Your task to perform on an android device: turn off location Image 0: 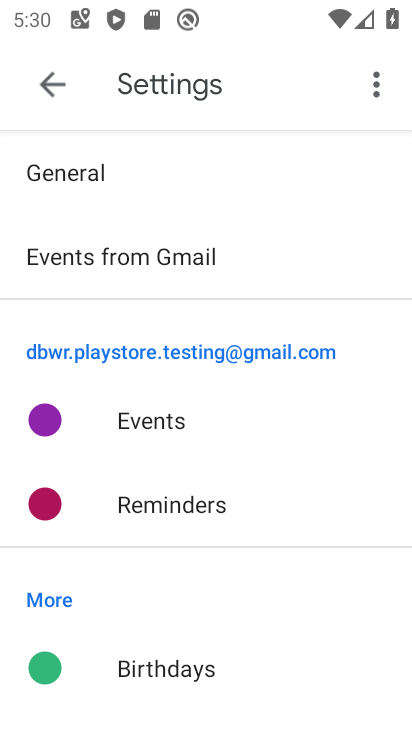
Step 0: press home button
Your task to perform on an android device: turn off location Image 1: 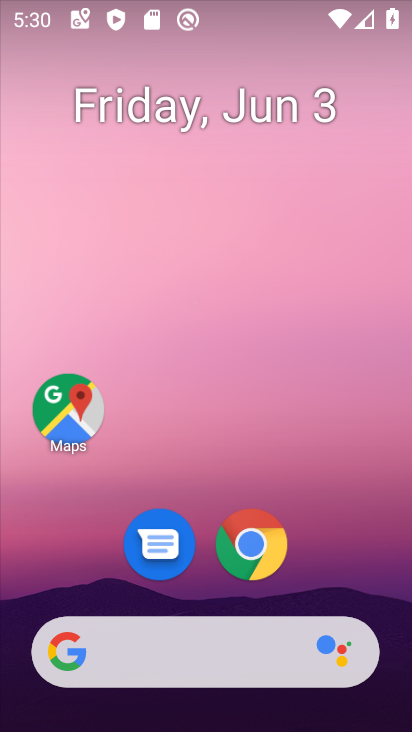
Step 1: drag from (333, 574) to (348, 95)
Your task to perform on an android device: turn off location Image 2: 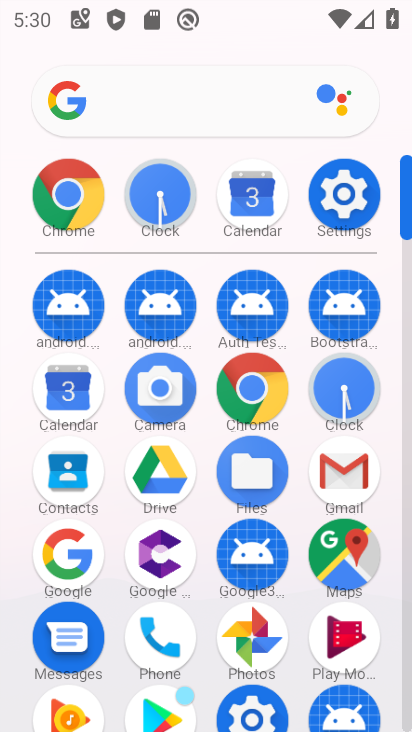
Step 2: click (341, 181)
Your task to perform on an android device: turn off location Image 3: 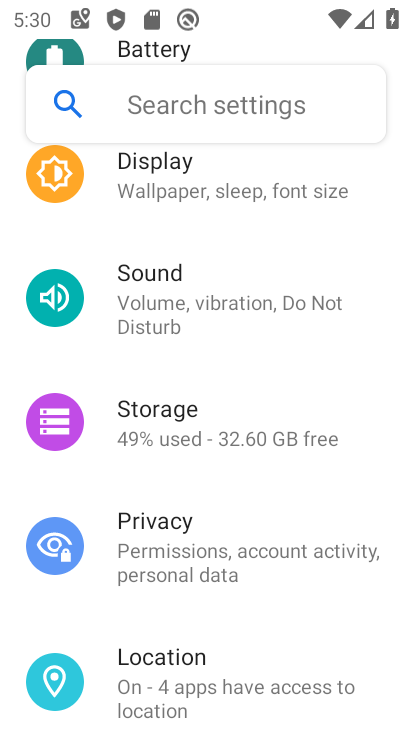
Step 3: click (173, 701)
Your task to perform on an android device: turn off location Image 4: 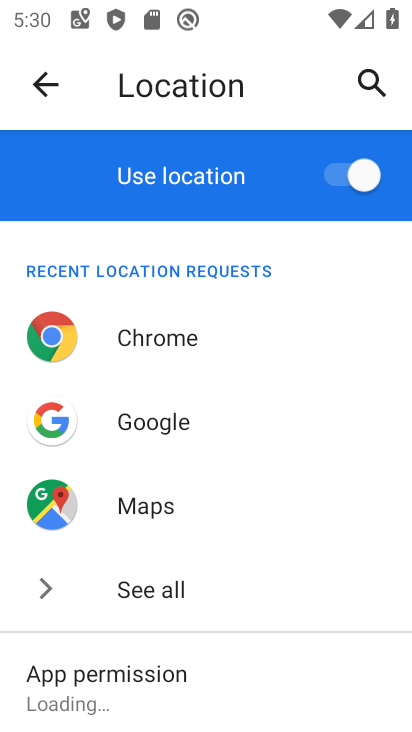
Step 4: click (343, 167)
Your task to perform on an android device: turn off location Image 5: 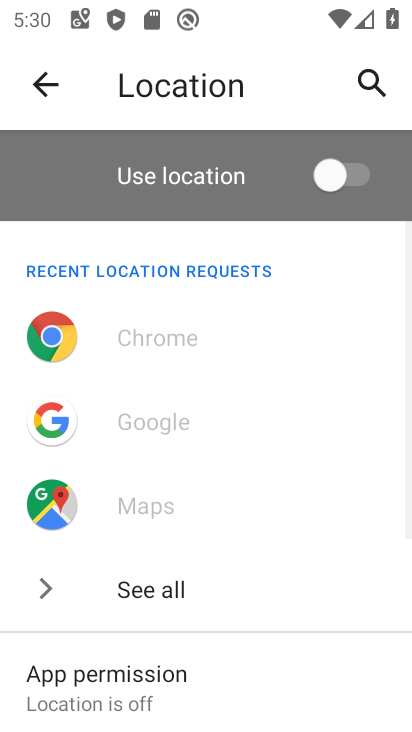
Step 5: task complete